Your task to perform on an android device: Open the phone app and click the voicemail tab. Image 0: 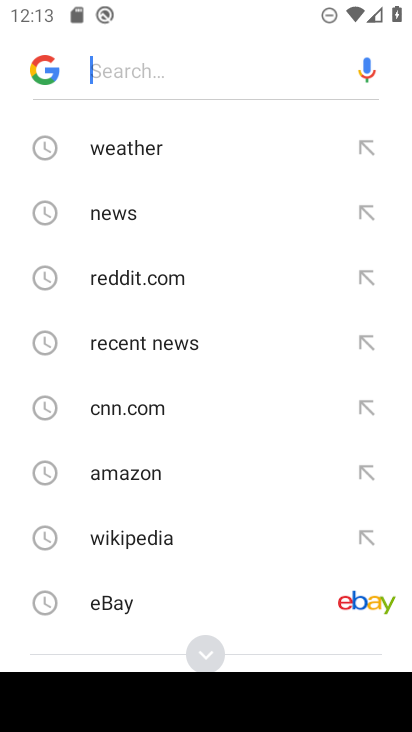
Step 0: press home button
Your task to perform on an android device: Open the phone app and click the voicemail tab. Image 1: 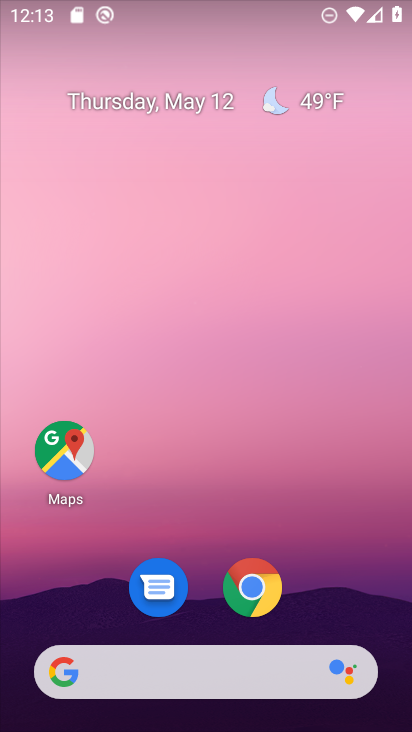
Step 1: task complete